Your task to perform on an android device: set an alarm Image 0: 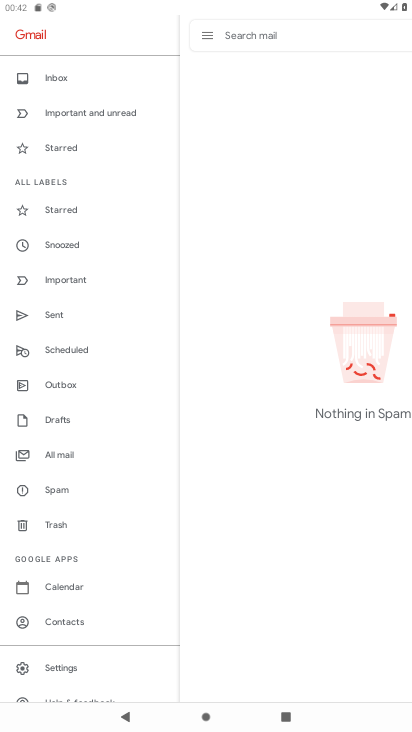
Step 0: press home button
Your task to perform on an android device: set an alarm Image 1: 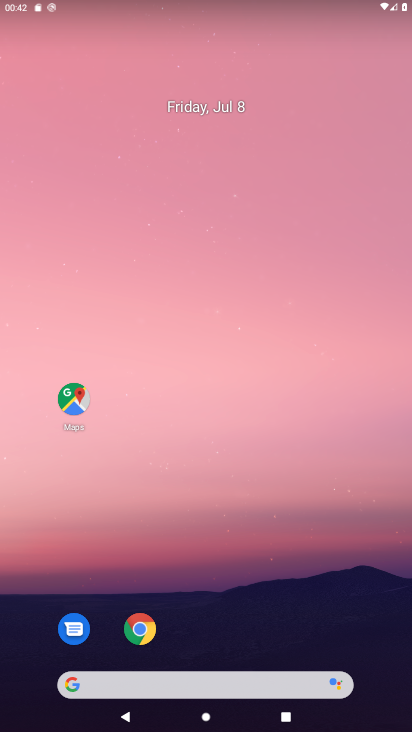
Step 1: drag from (225, 639) to (225, 39)
Your task to perform on an android device: set an alarm Image 2: 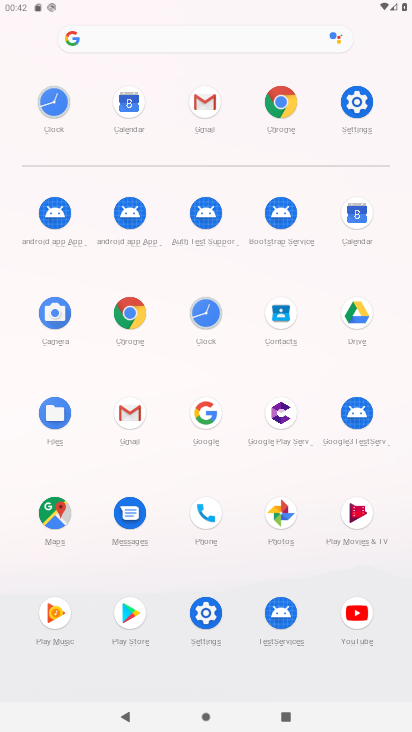
Step 2: click (201, 319)
Your task to perform on an android device: set an alarm Image 3: 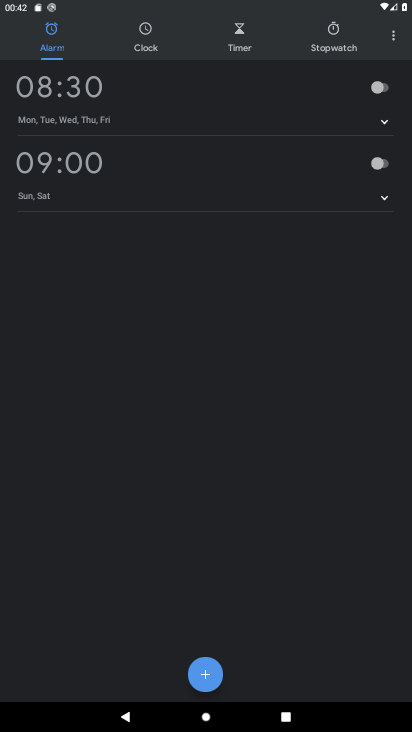
Step 3: click (207, 669)
Your task to perform on an android device: set an alarm Image 4: 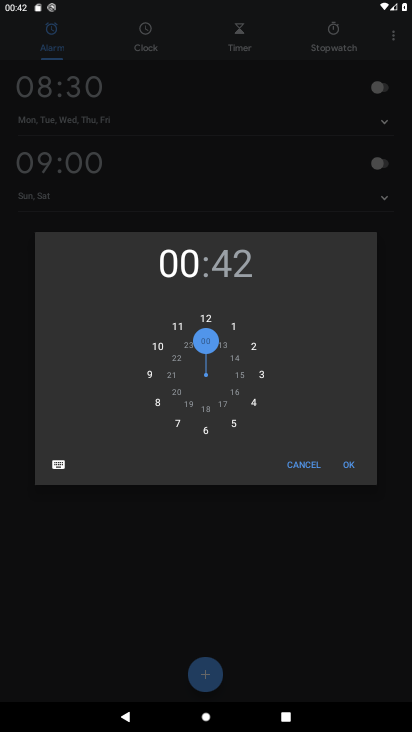
Step 4: click (349, 464)
Your task to perform on an android device: set an alarm Image 5: 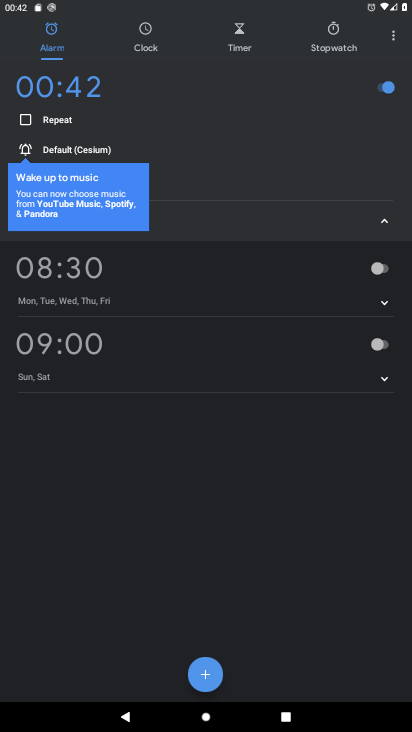
Step 5: click (379, 216)
Your task to perform on an android device: set an alarm Image 6: 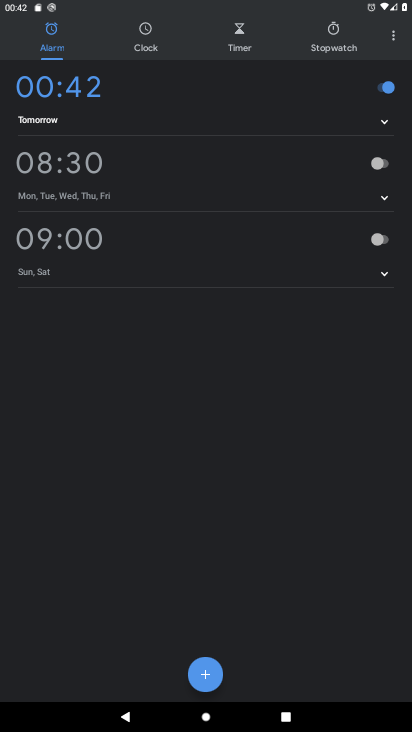
Step 6: task complete